Your task to perform on an android device: add a contact in the contacts app Image 0: 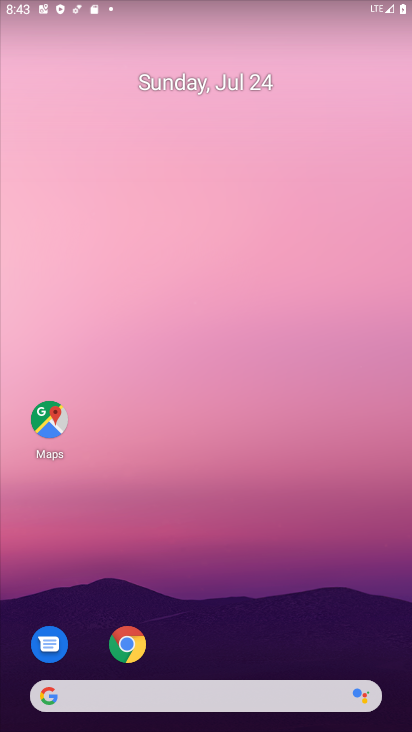
Step 0: drag from (87, 418) to (268, 29)
Your task to perform on an android device: add a contact in the contacts app Image 1: 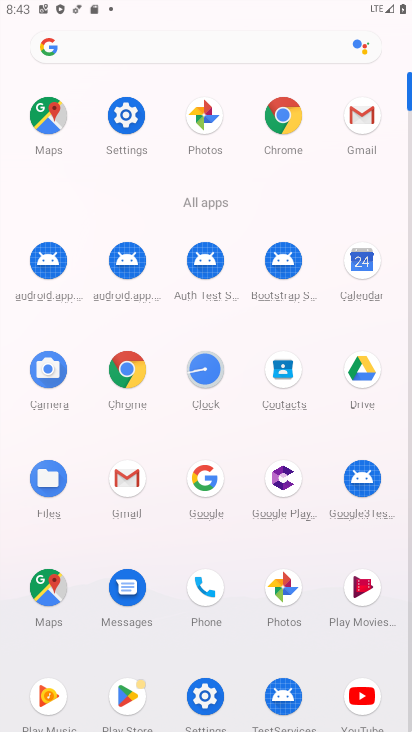
Step 1: click (197, 585)
Your task to perform on an android device: add a contact in the contacts app Image 2: 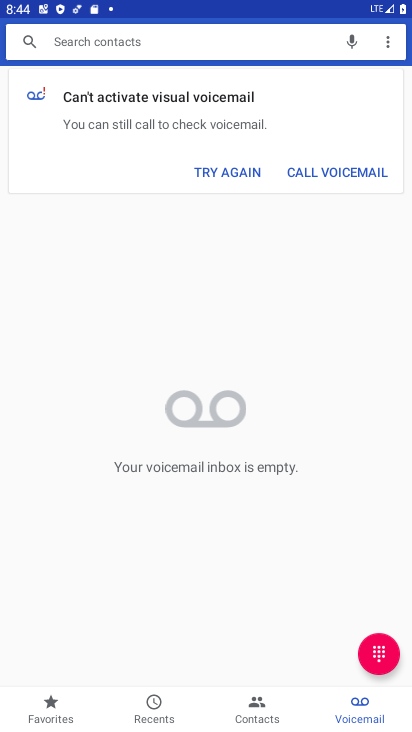
Step 2: click (248, 697)
Your task to perform on an android device: add a contact in the contacts app Image 3: 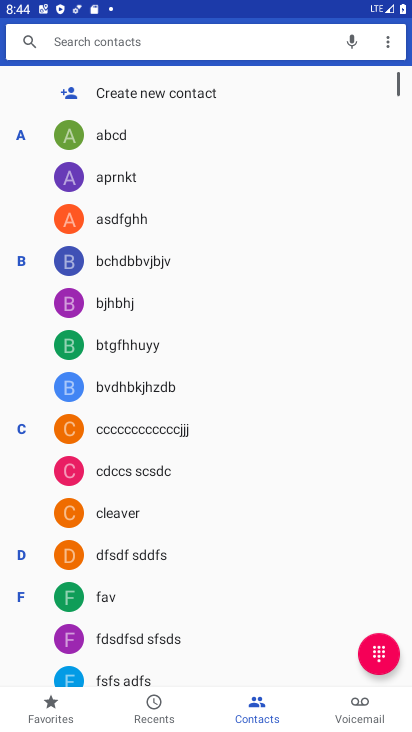
Step 3: click (195, 84)
Your task to perform on an android device: add a contact in the contacts app Image 4: 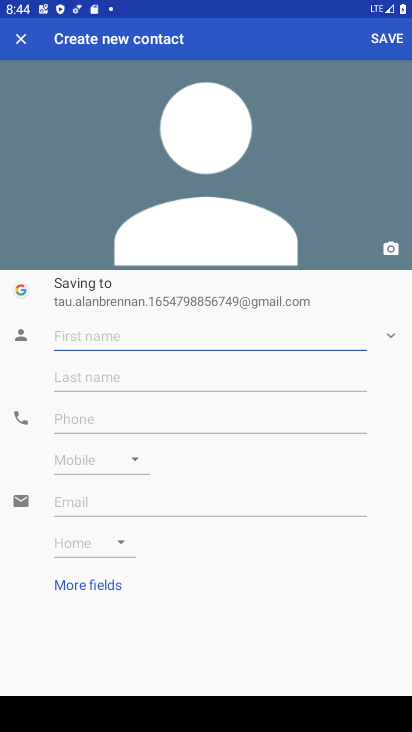
Step 4: click (187, 341)
Your task to perform on an android device: add a contact in the contacts app Image 5: 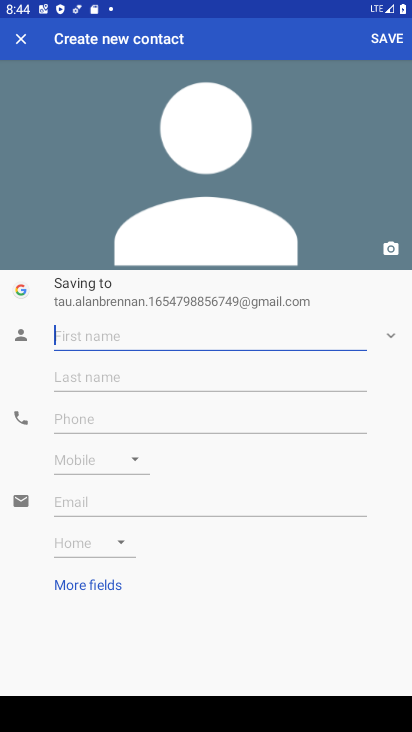
Step 5: type "bghbvd"
Your task to perform on an android device: add a contact in the contacts app Image 6: 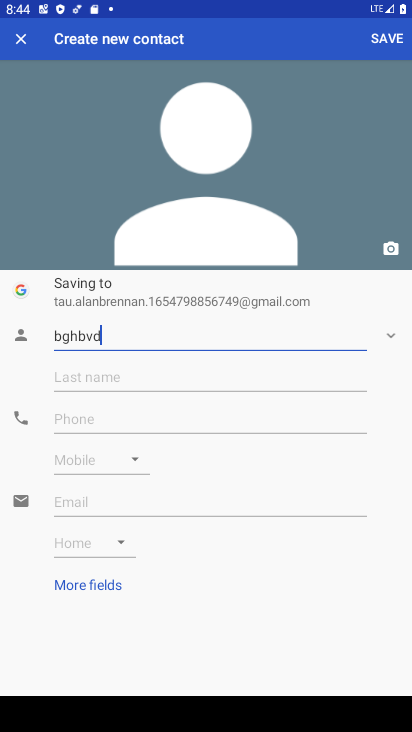
Step 6: type ""
Your task to perform on an android device: add a contact in the contacts app Image 7: 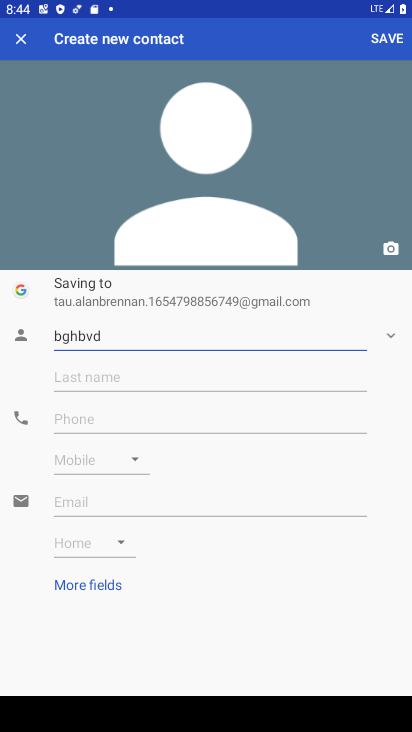
Step 7: click (385, 38)
Your task to perform on an android device: add a contact in the contacts app Image 8: 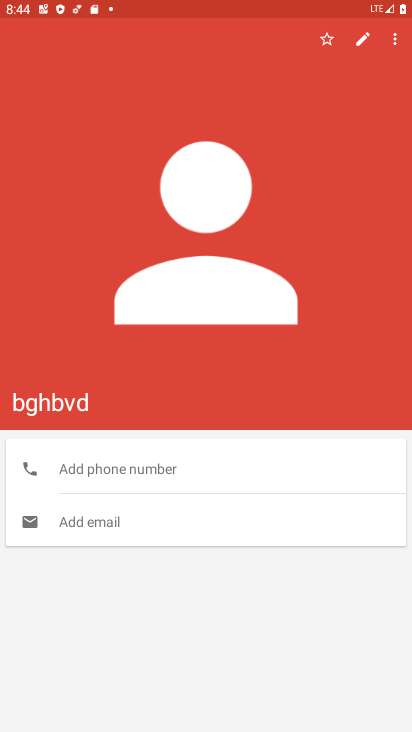
Step 8: task complete